Your task to perform on an android device: manage bookmarks in the chrome app Image 0: 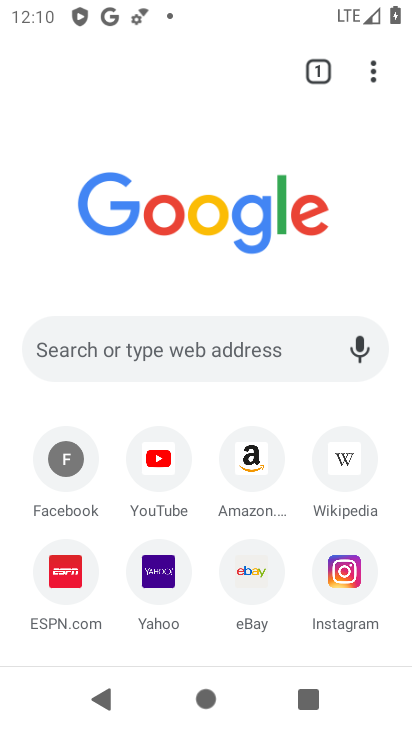
Step 0: drag from (372, 67) to (154, 266)
Your task to perform on an android device: manage bookmarks in the chrome app Image 1: 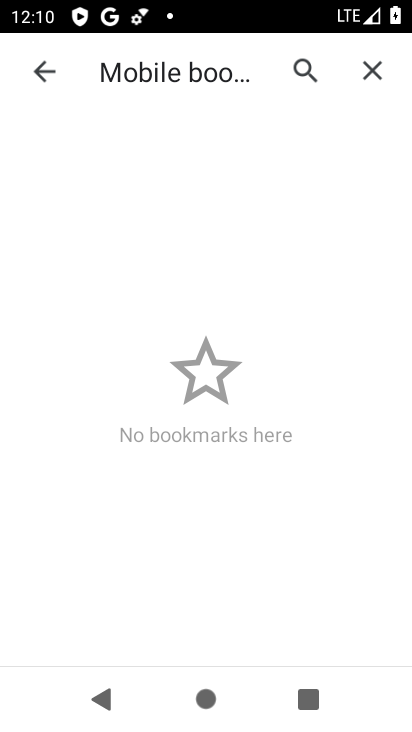
Step 1: task complete